Your task to perform on an android device: turn off wifi Image 0: 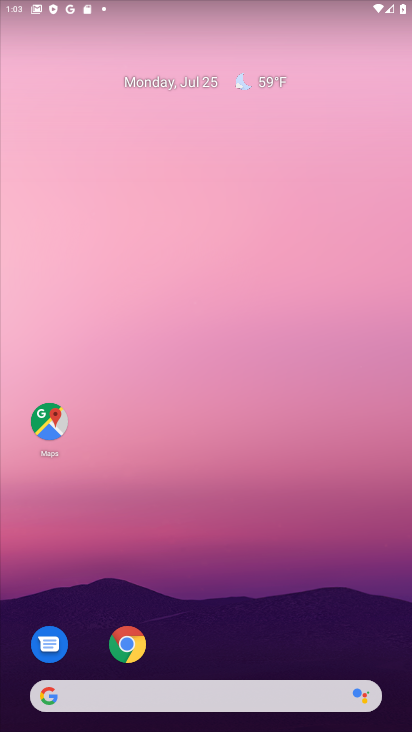
Step 0: drag from (222, 551) to (297, 11)
Your task to perform on an android device: turn off wifi Image 1: 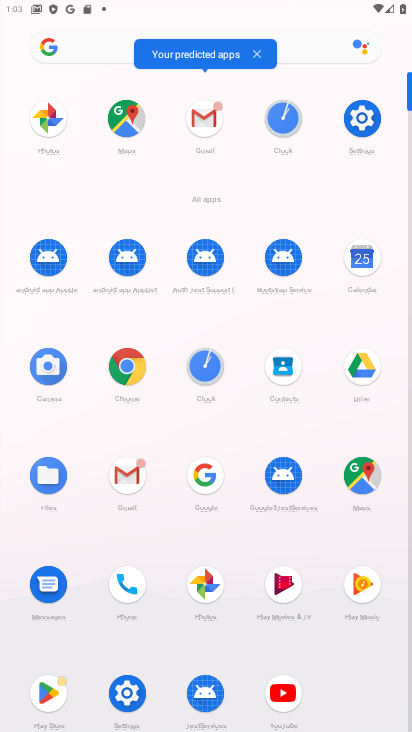
Step 1: click (356, 125)
Your task to perform on an android device: turn off wifi Image 2: 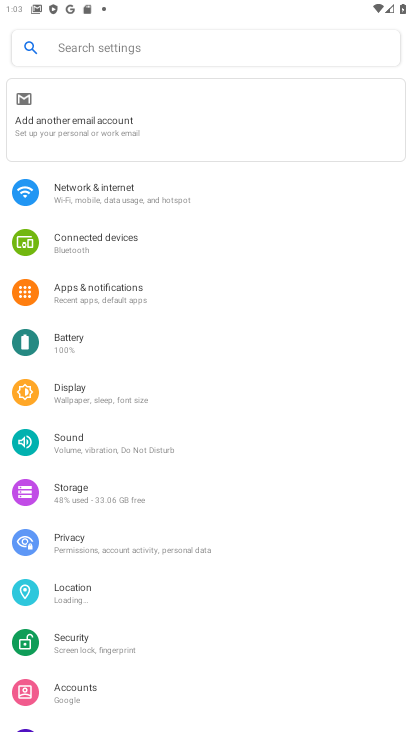
Step 2: drag from (86, 303) to (154, 155)
Your task to perform on an android device: turn off wifi Image 3: 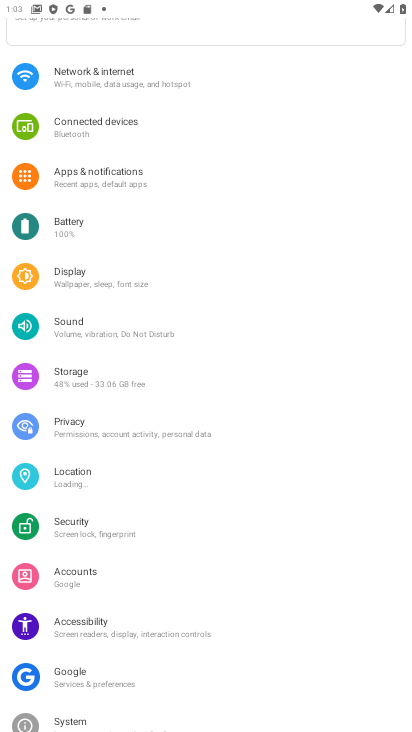
Step 3: click (77, 280)
Your task to perform on an android device: turn off wifi Image 4: 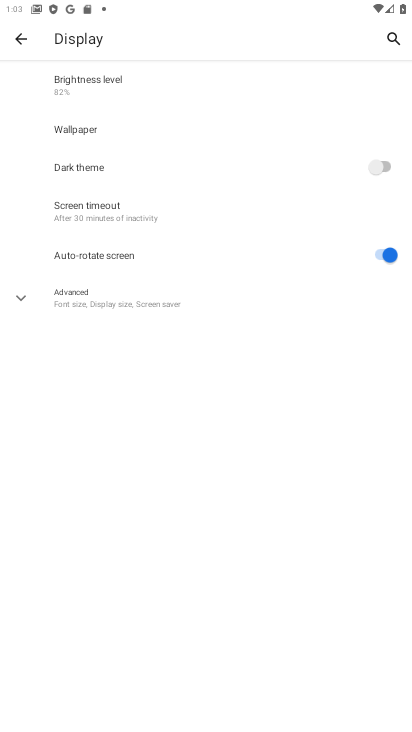
Step 4: click (117, 299)
Your task to perform on an android device: turn off wifi Image 5: 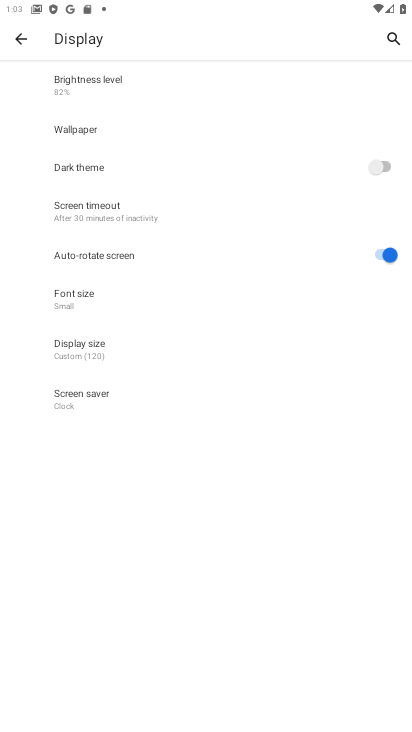
Step 5: click (116, 341)
Your task to perform on an android device: turn off wifi Image 6: 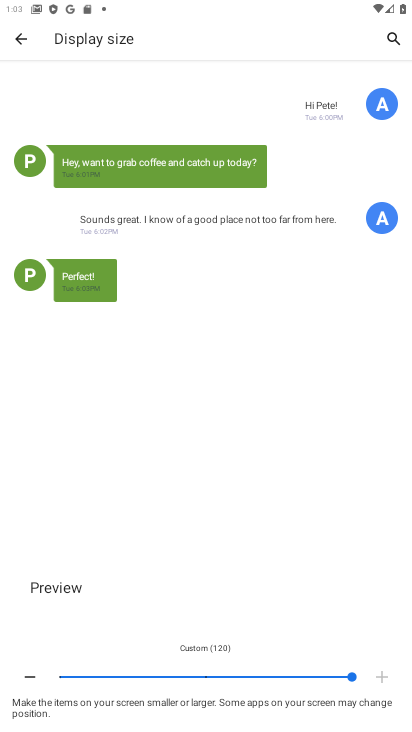
Step 6: click (209, 674)
Your task to perform on an android device: turn off wifi Image 7: 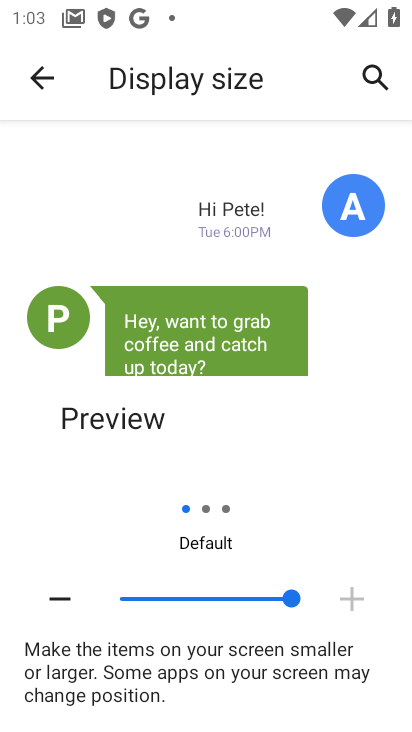
Step 7: click (47, 68)
Your task to perform on an android device: turn off wifi Image 8: 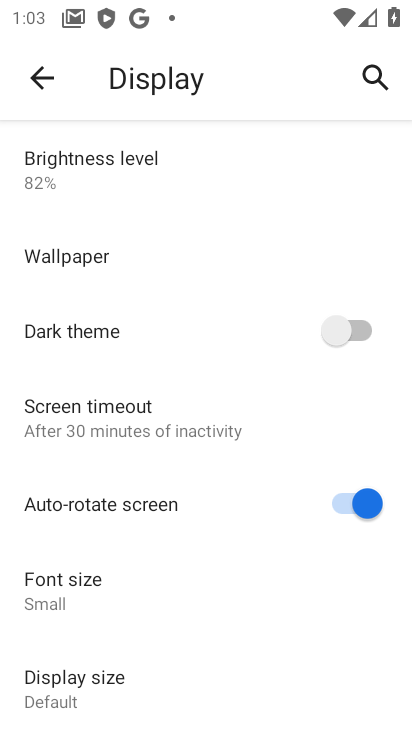
Step 8: press back button
Your task to perform on an android device: turn off wifi Image 9: 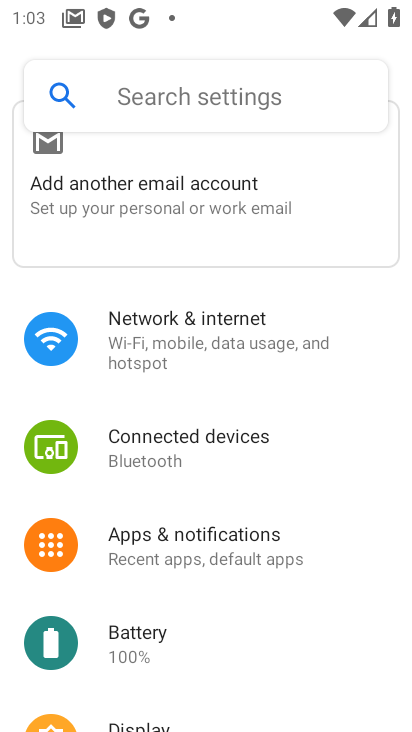
Step 9: press back button
Your task to perform on an android device: turn off wifi Image 10: 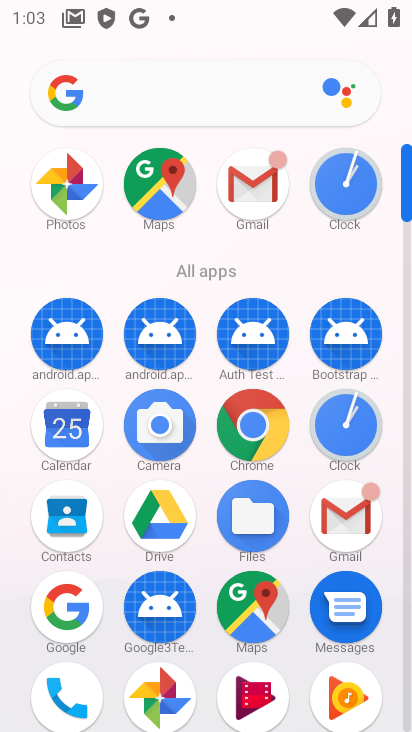
Step 10: press back button
Your task to perform on an android device: turn off wifi Image 11: 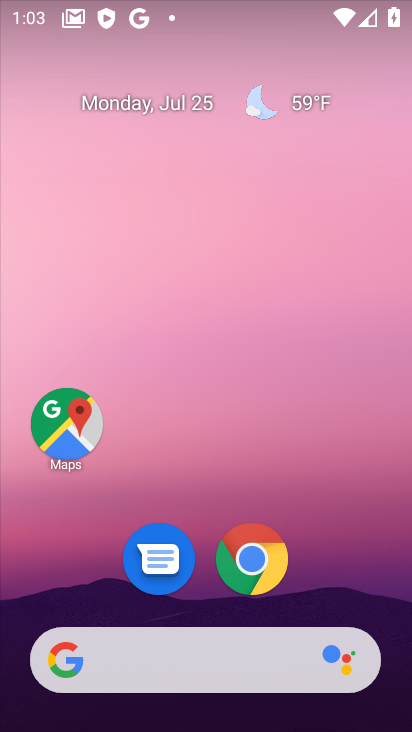
Step 11: drag from (198, 12) to (188, 628)
Your task to perform on an android device: turn off wifi Image 12: 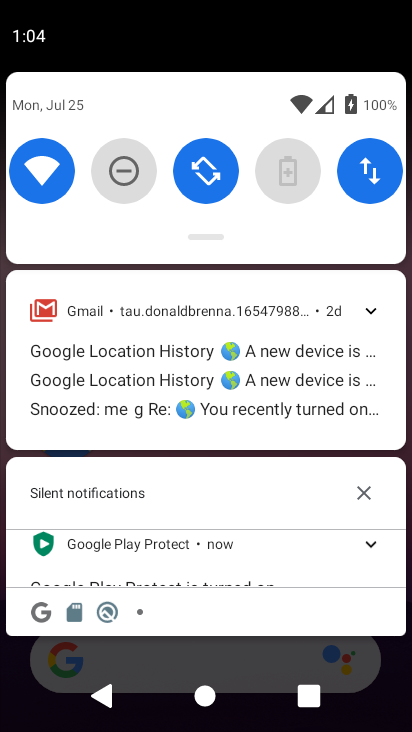
Step 12: click (48, 167)
Your task to perform on an android device: turn off wifi Image 13: 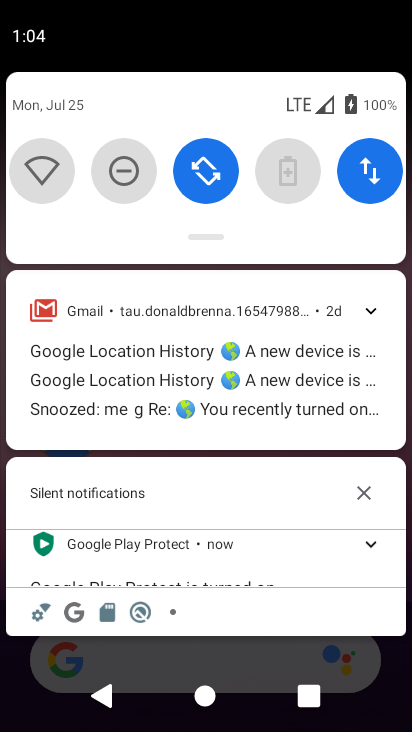
Step 13: task complete